Your task to perform on an android device: Go to network settings Image 0: 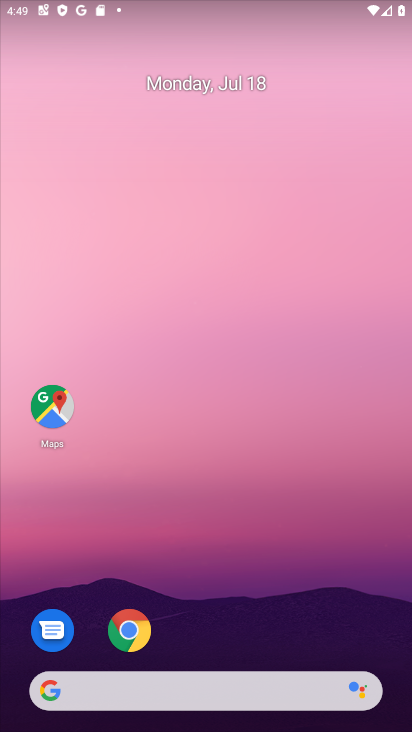
Step 0: press home button
Your task to perform on an android device: Go to network settings Image 1: 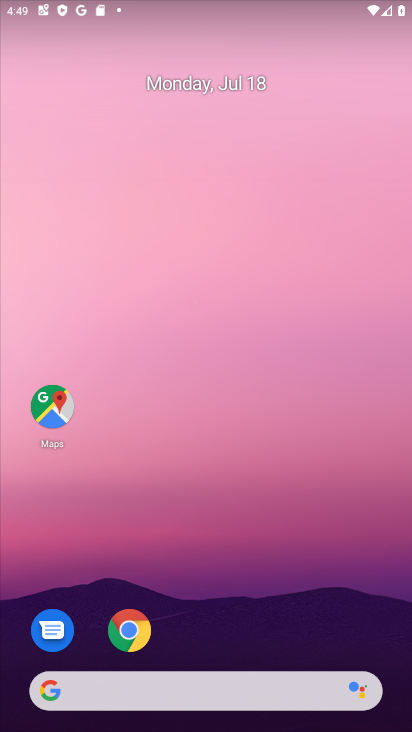
Step 1: drag from (240, 640) to (314, 70)
Your task to perform on an android device: Go to network settings Image 2: 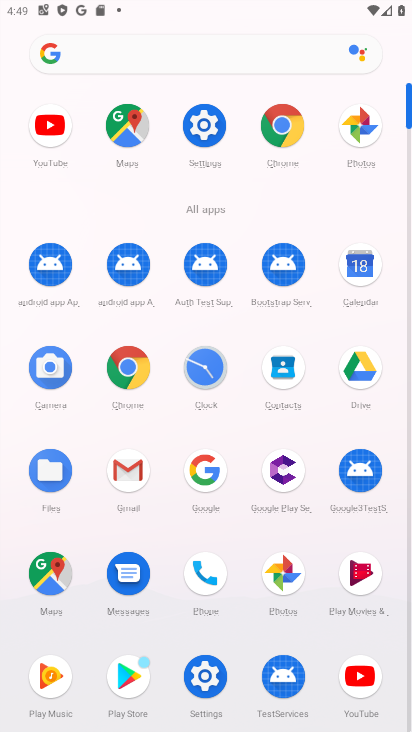
Step 2: click (199, 118)
Your task to perform on an android device: Go to network settings Image 3: 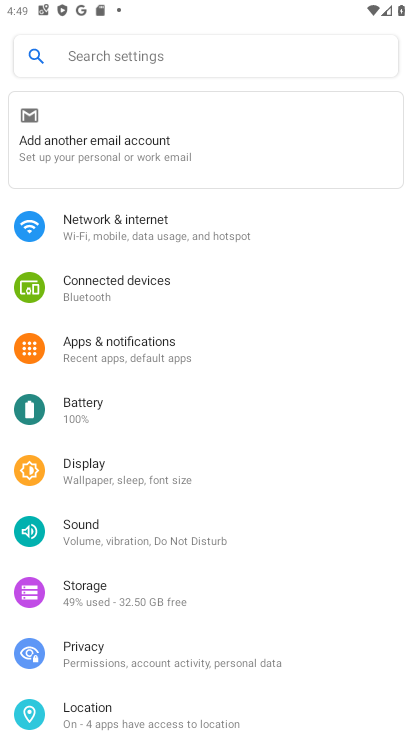
Step 3: click (182, 223)
Your task to perform on an android device: Go to network settings Image 4: 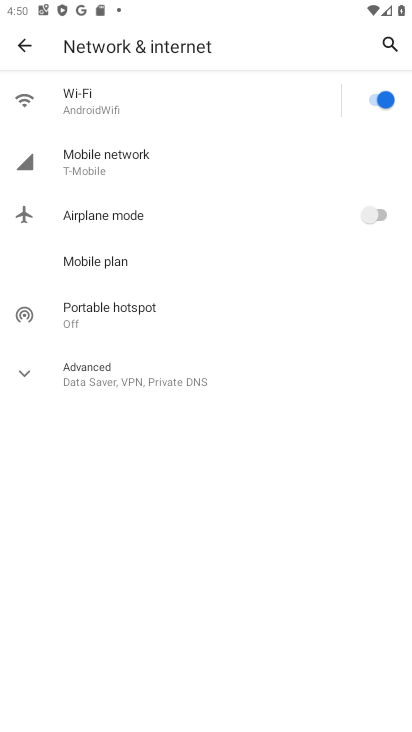
Step 4: click (31, 374)
Your task to perform on an android device: Go to network settings Image 5: 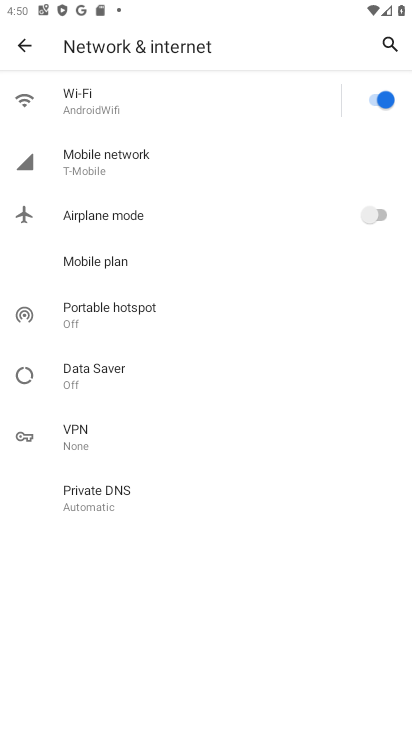
Step 5: task complete